Your task to perform on an android device: Check the news Image 0: 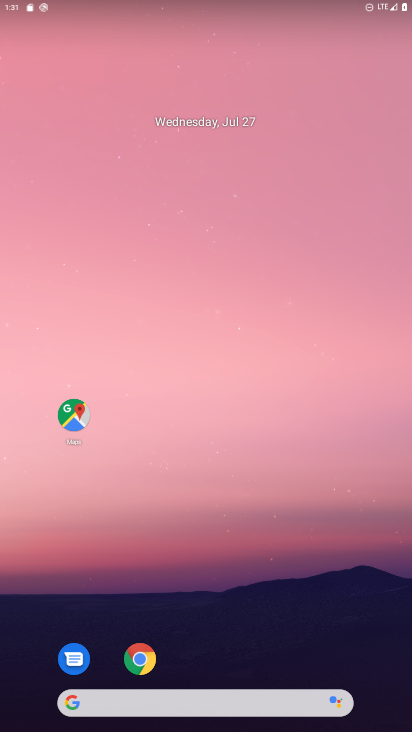
Step 0: drag from (233, 621) to (262, 255)
Your task to perform on an android device: Check the news Image 1: 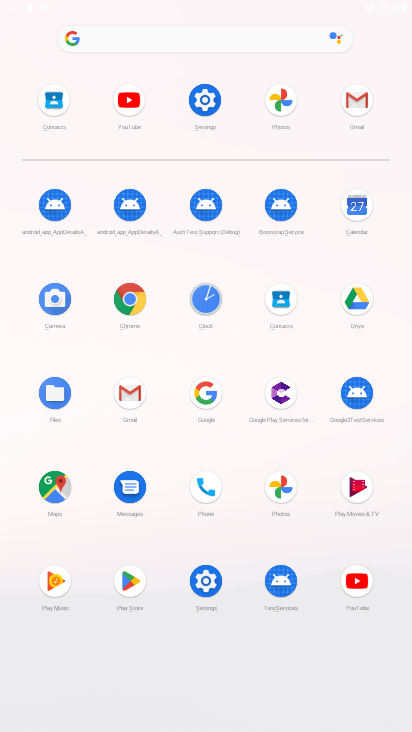
Step 1: click (179, 30)
Your task to perform on an android device: Check the news Image 2: 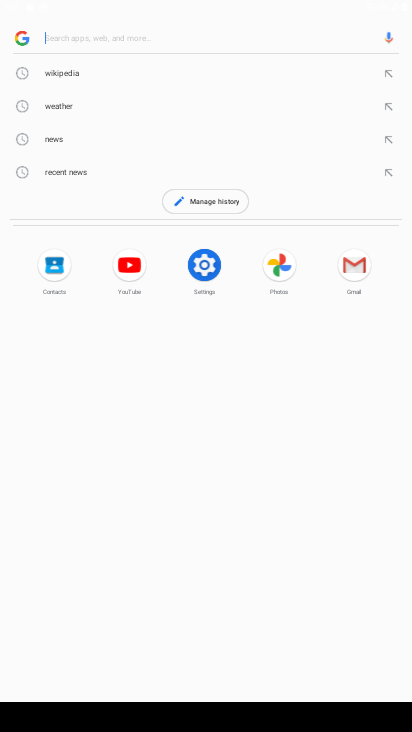
Step 2: type "news"
Your task to perform on an android device: Check the news Image 3: 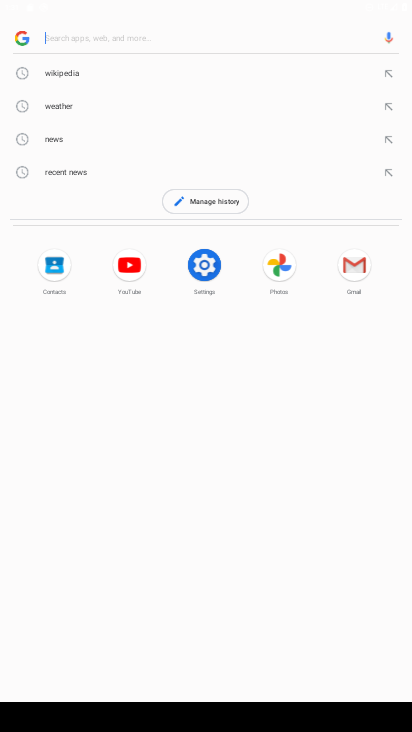
Step 3: click (78, 135)
Your task to perform on an android device: Check the news Image 4: 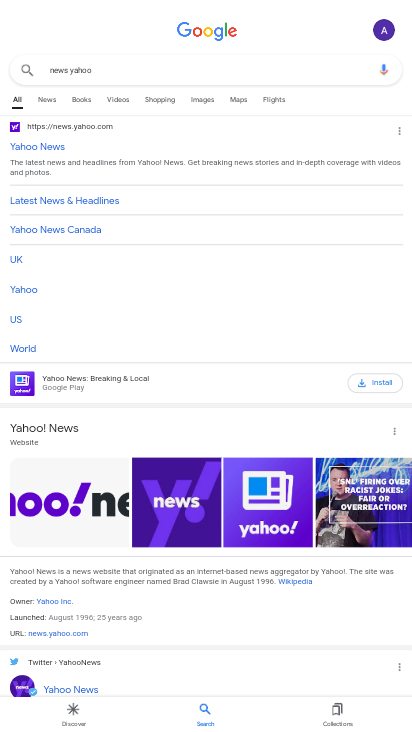
Step 4: click (309, 61)
Your task to perform on an android device: Check the news Image 5: 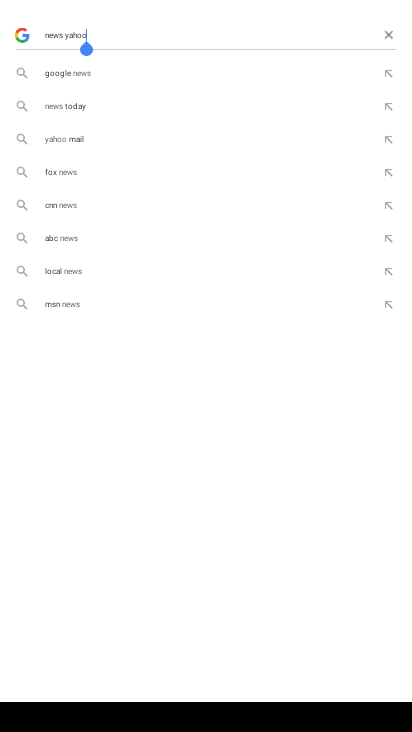
Step 5: click (390, 35)
Your task to perform on an android device: Check the news Image 6: 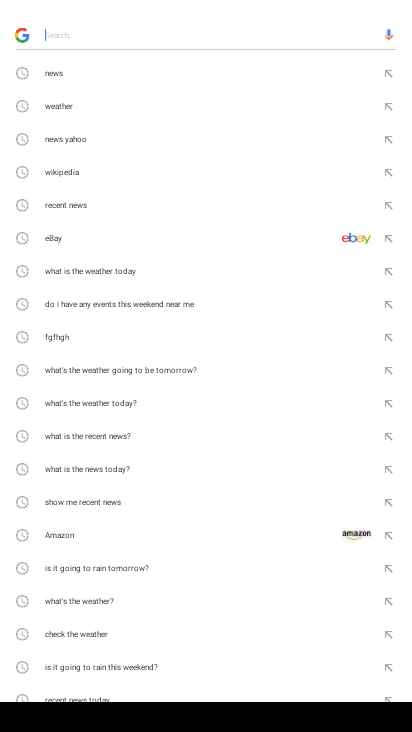
Step 6: click (143, 72)
Your task to perform on an android device: Check the news Image 7: 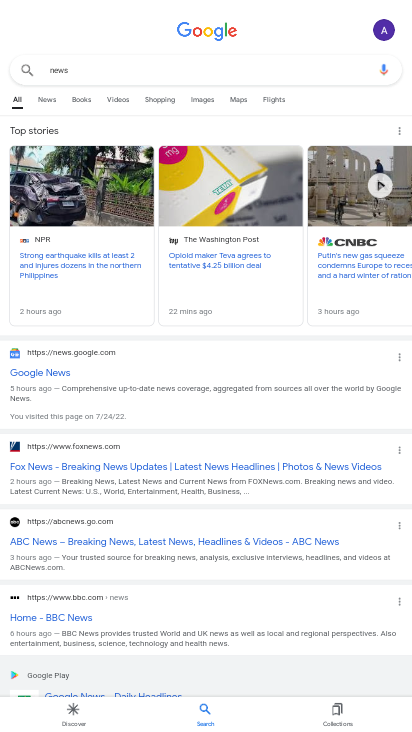
Step 7: click (24, 374)
Your task to perform on an android device: Check the news Image 8: 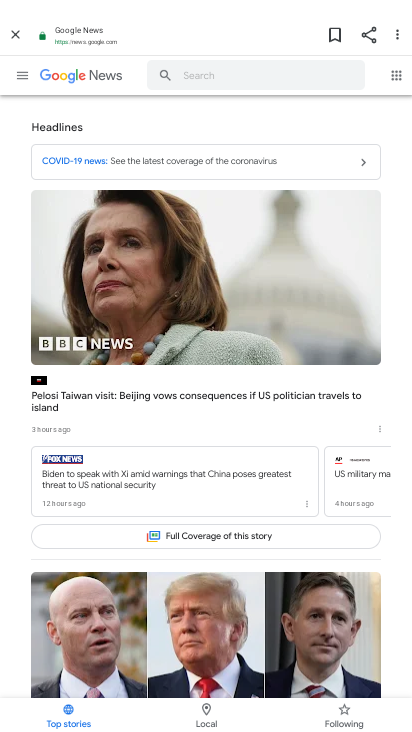
Step 8: drag from (301, 516) to (309, 294)
Your task to perform on an android device: Check the news Image 9: 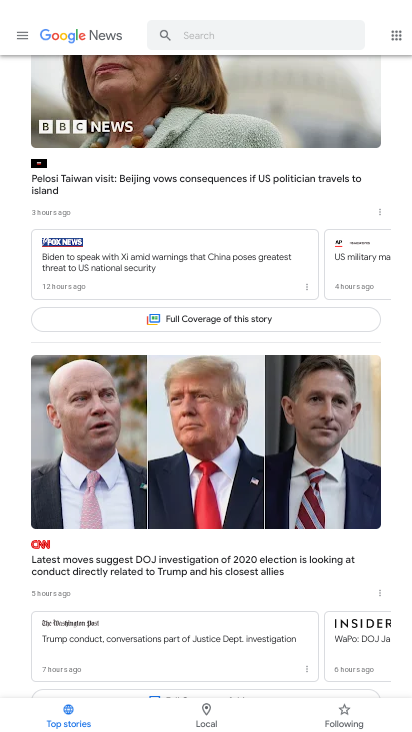
Step 9: drag from (314, 313) to (342, 163)
Your task to perform on an android device: Check the news Image 10: 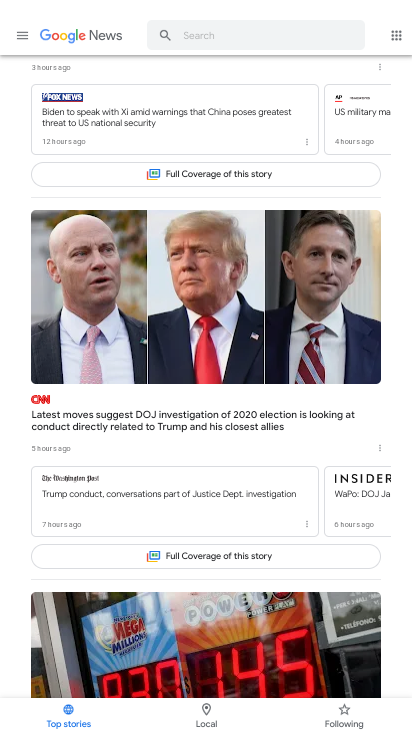
Step 10: click (253, 303)
Your task to perform on an android device: Check the news Image 11: 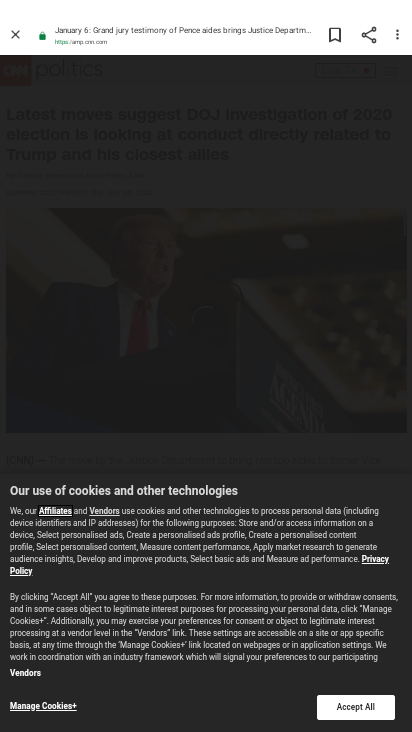
Step 11: task complete